Your task to perform on an android device: Clear the cart on target. Search for logitech g903 on target, select the first entry, add it to the cart, then select checkout. Image 0: 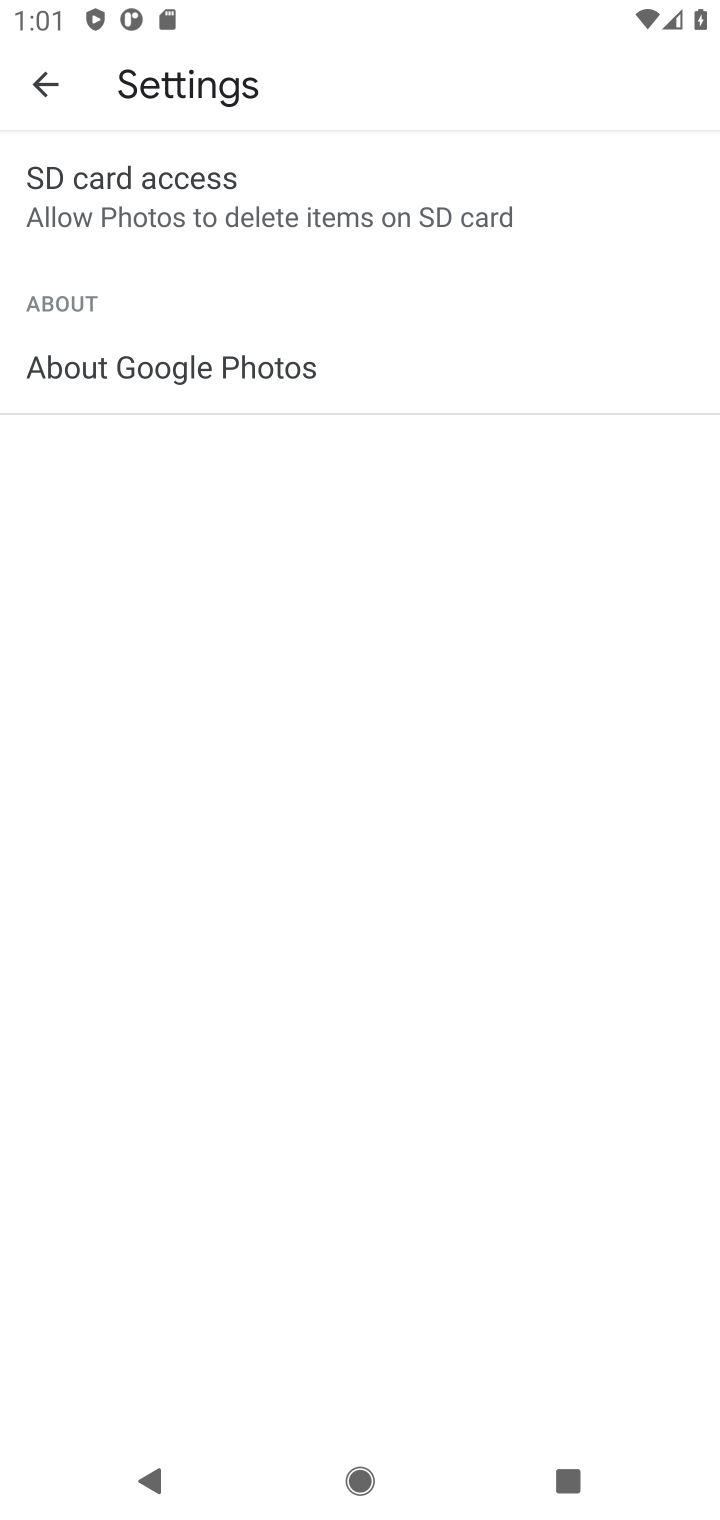
Step 0: press home button
Your task to perform on an android device: Clear the cart on target. Search for logitech g903 on target, select the first entry, add it to the cart, then select checkout. Image 1: 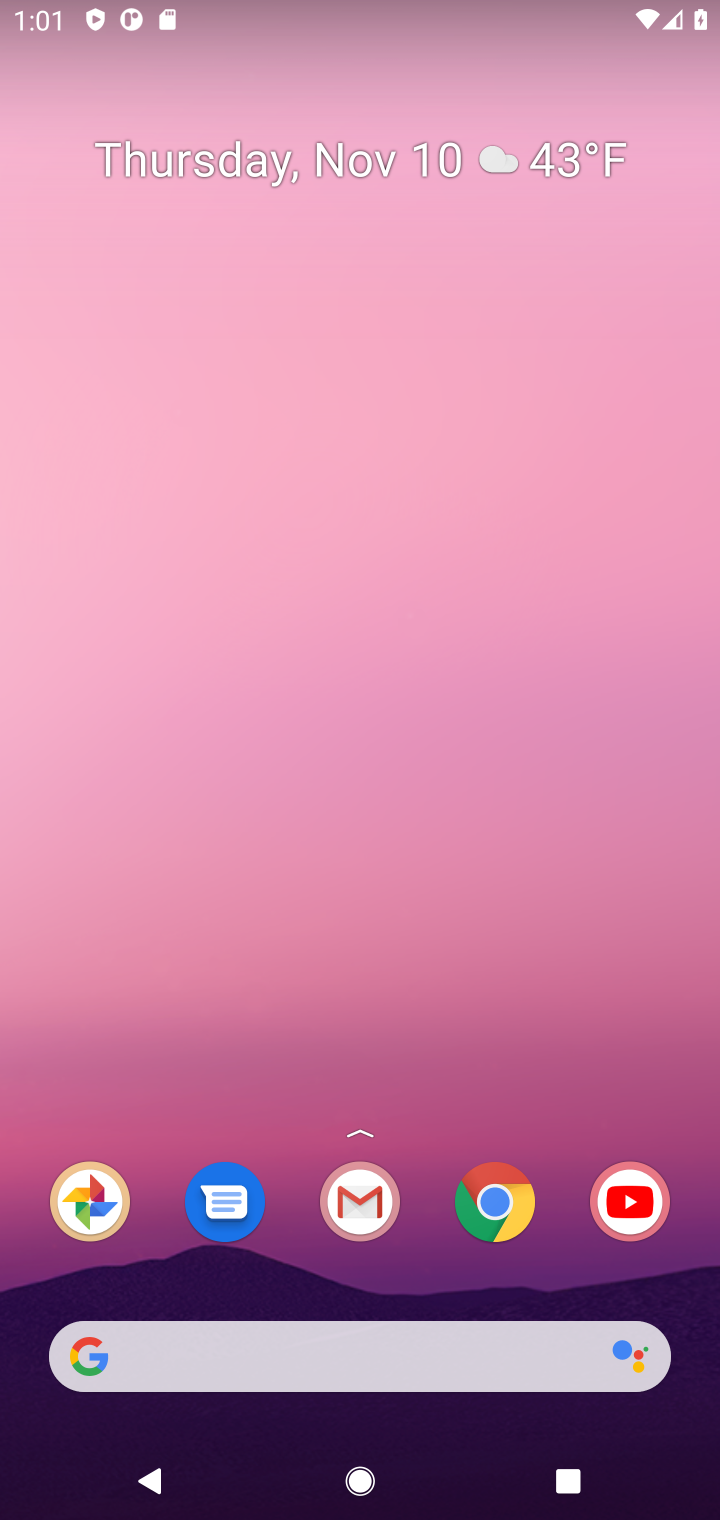
Step 1: click (491, 1203)
Your task to perform on an android device: Clear the cart on target. Search for logitech g903 on target, select the first entry, add it to the cart, then select checkout. Image 2: 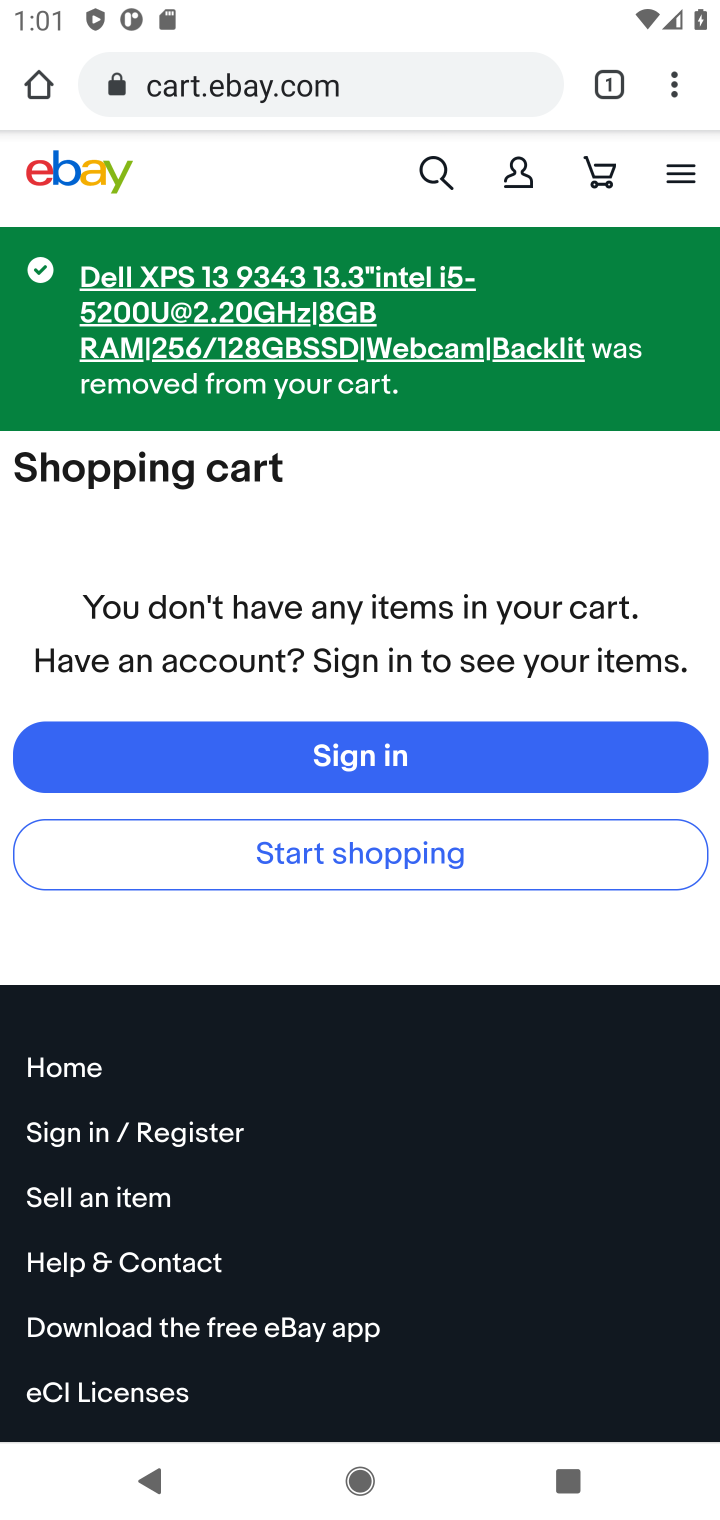
Step 2: click (423, 67)
Your task to perform on an android device: Clear the cart on target. Search for logitech g903 on target, select the first entry, add it to the cart, then select checkout. Image 3: 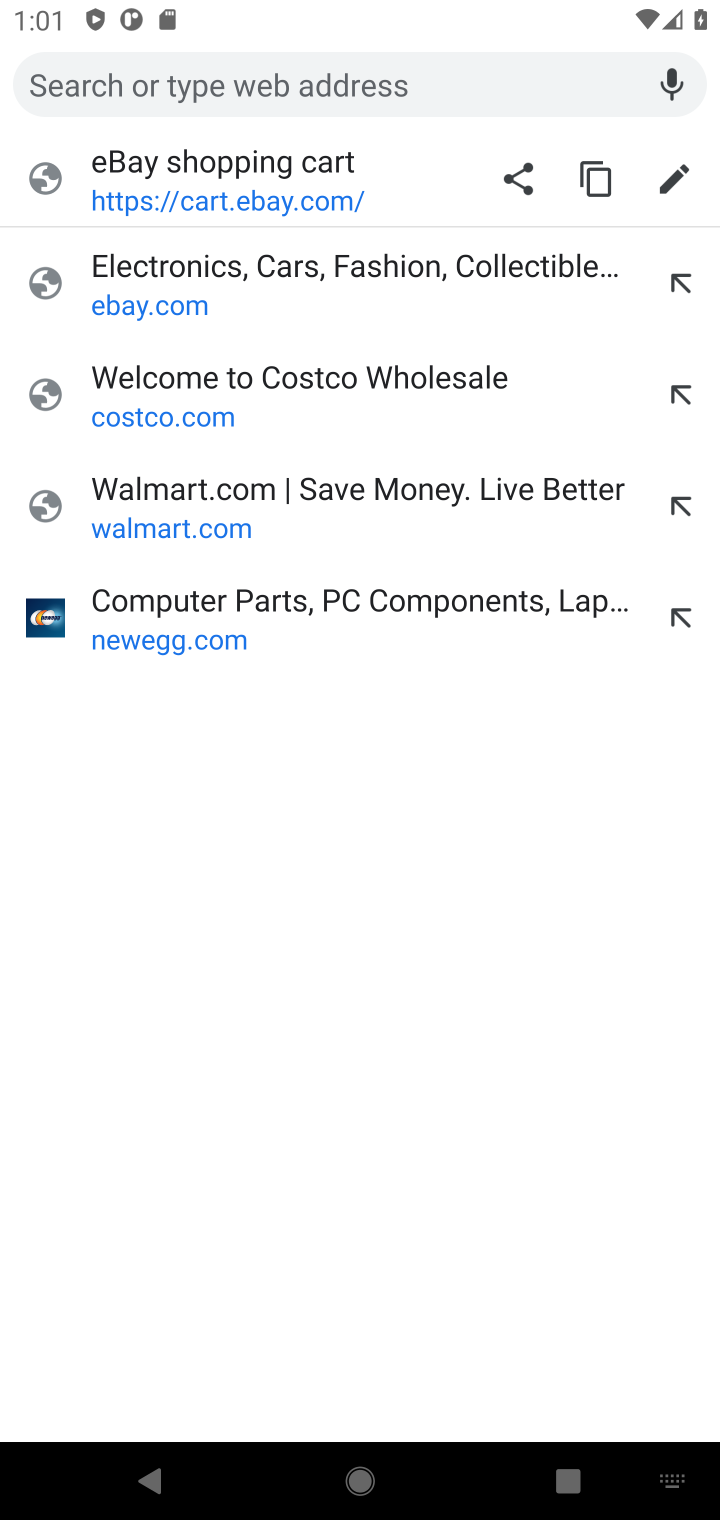
Step 3: type "target"
Your task to perform on an android device: Clear the cart on target. Search for logitech g903 on target, select the first entry, add it to the cart, then select checkout. Image 4: 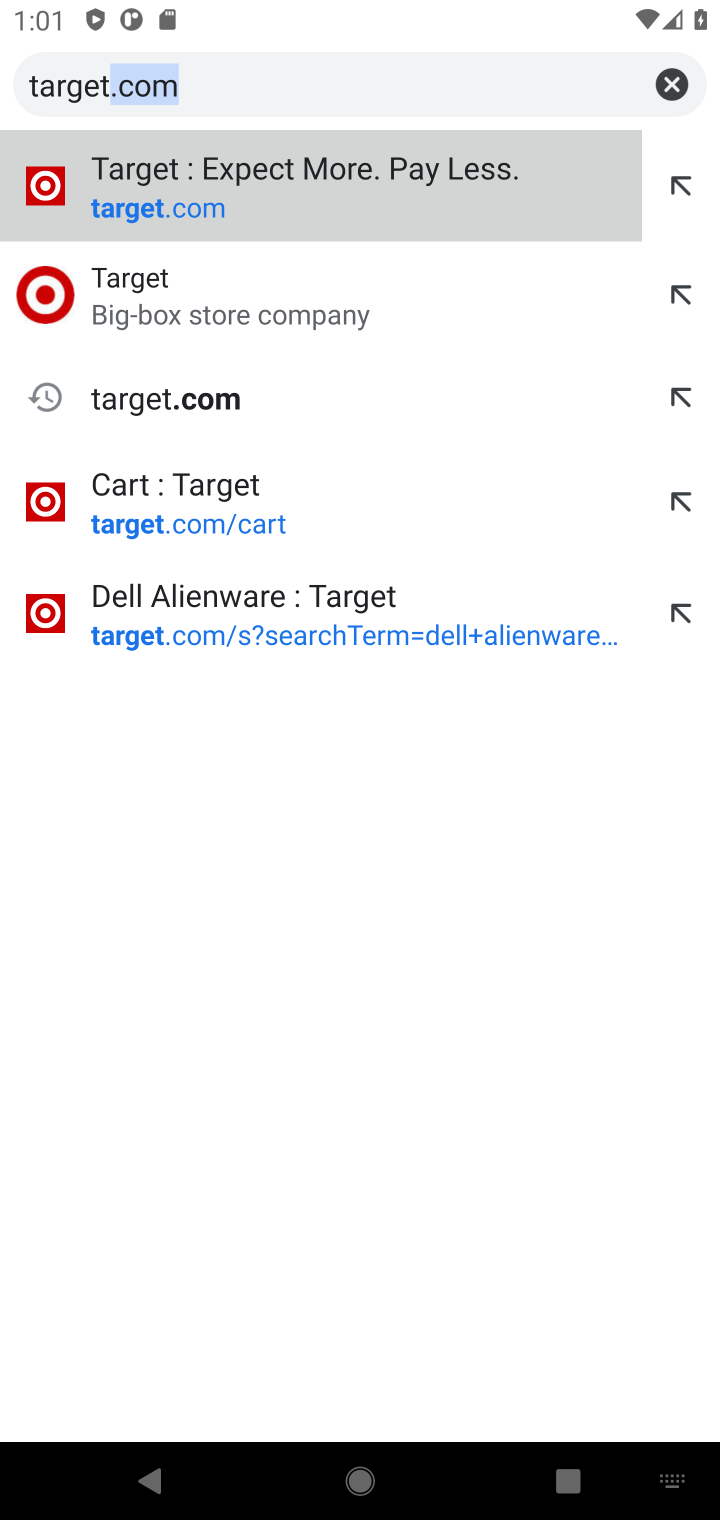
Step 4: press enter
Your task to perform on an android device: Clear the cart on target. Search for logitech g903 on target, select the first entry, add it to the cart, then select checkout. Image 5: 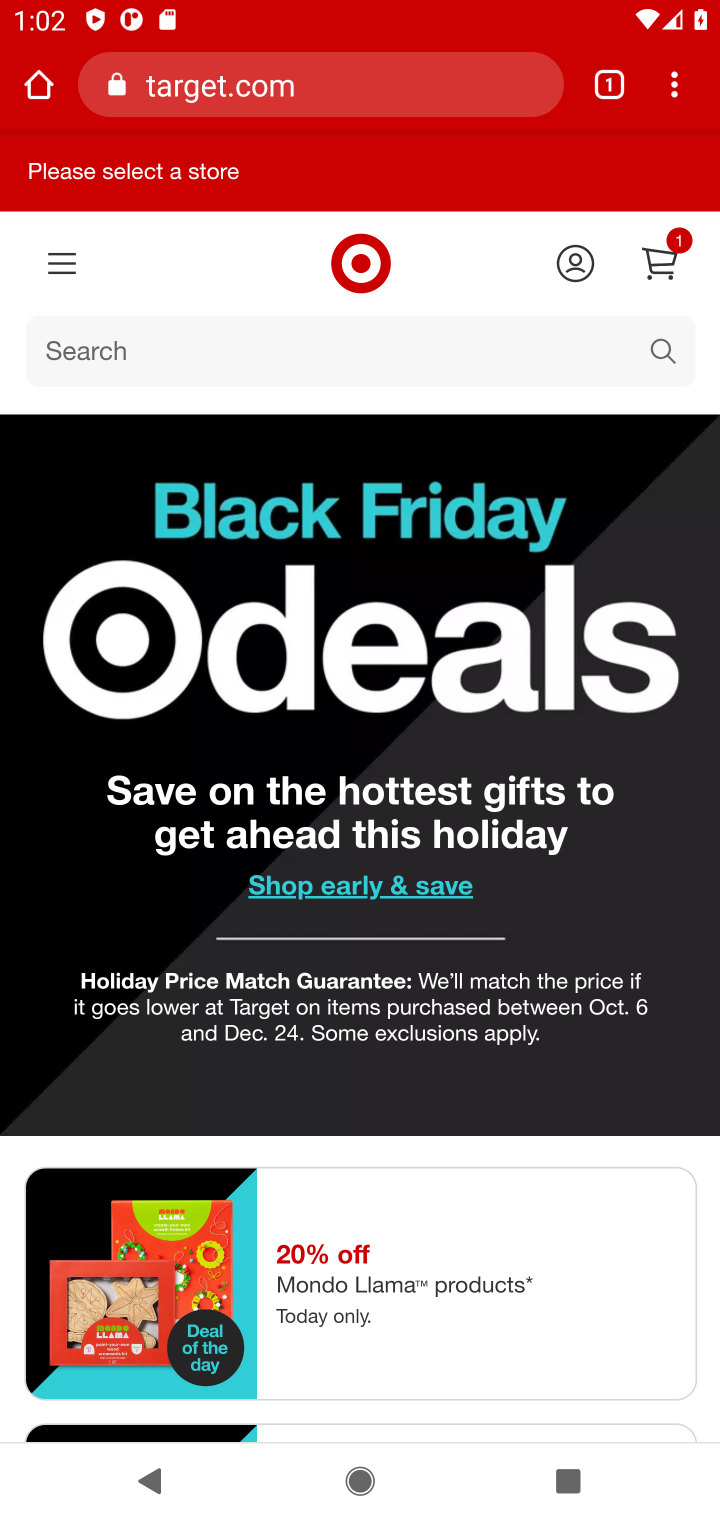
Step 5: click (660, 271)
Your task to perform on an android device: Clear the cart on target. Search for logitech g903 on target, select the first entry, add it to the cart, then select checkout. Image 6: 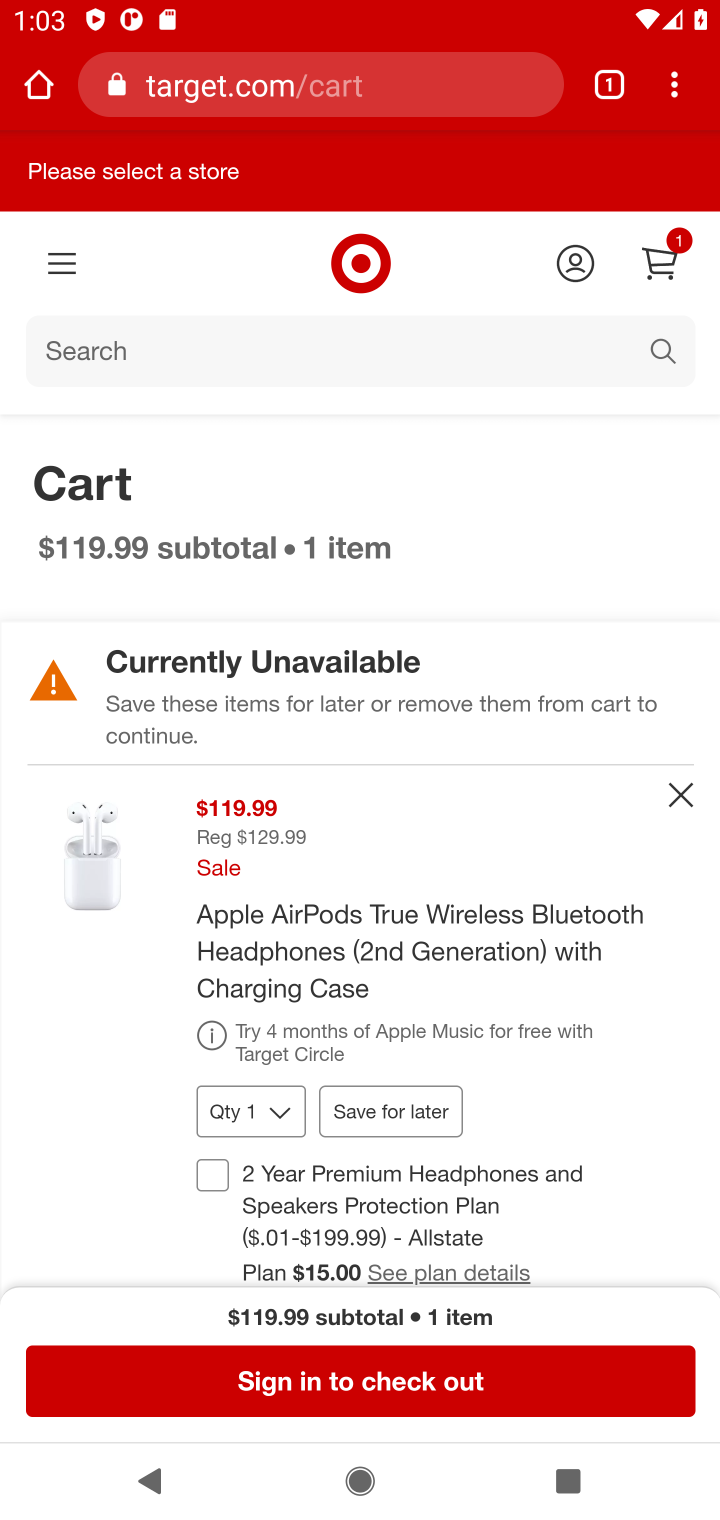
Step 6: click (679, 790)
Your task to perform on an android device: Clear the cart on target. Search for logitech g903 on target, select the first entry, add it to the cart, then select checkout. Image 7: 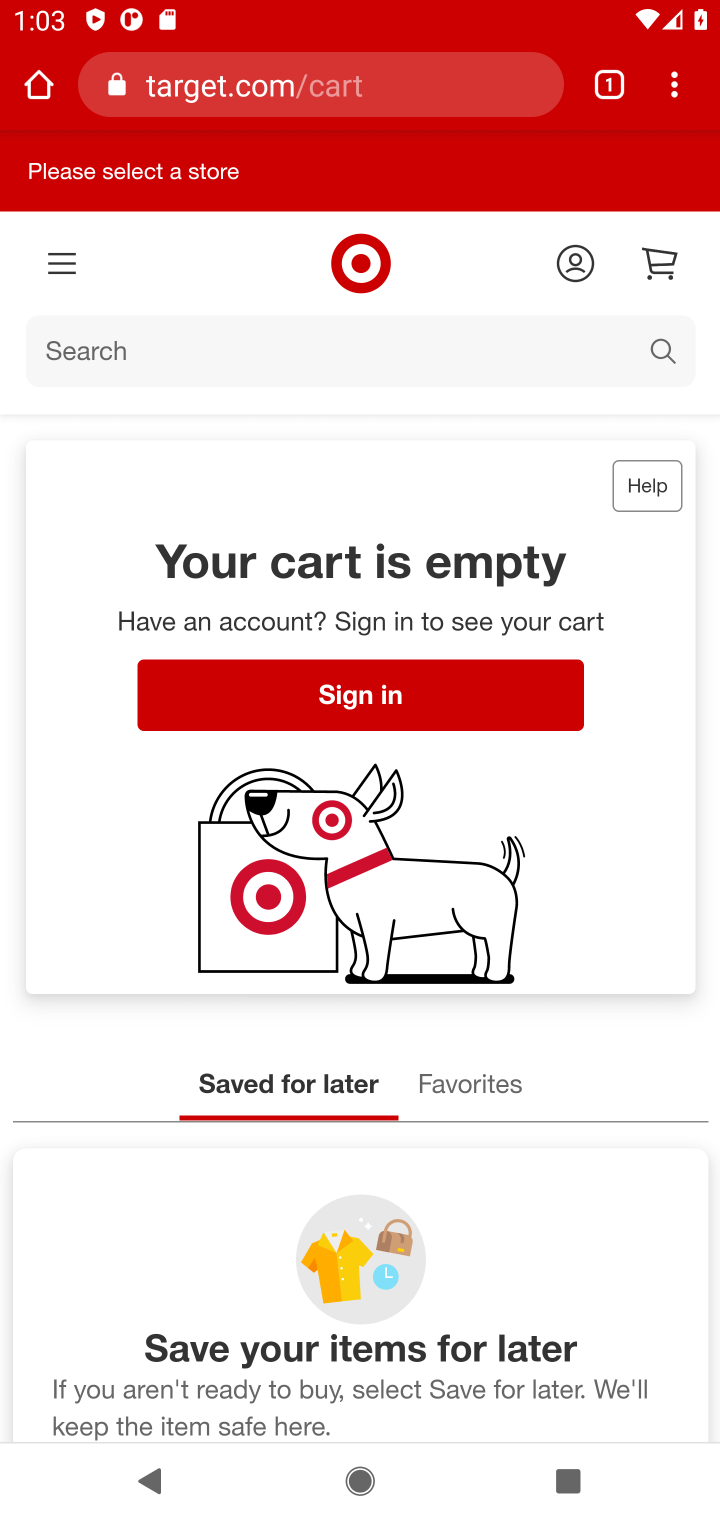
Step 7: click (661, 356)
Your task to perform on an android device: Clear the cart on target. Search for logitech g903 on target, select the first entry, add it to the cart, then select checkout. Image 8: 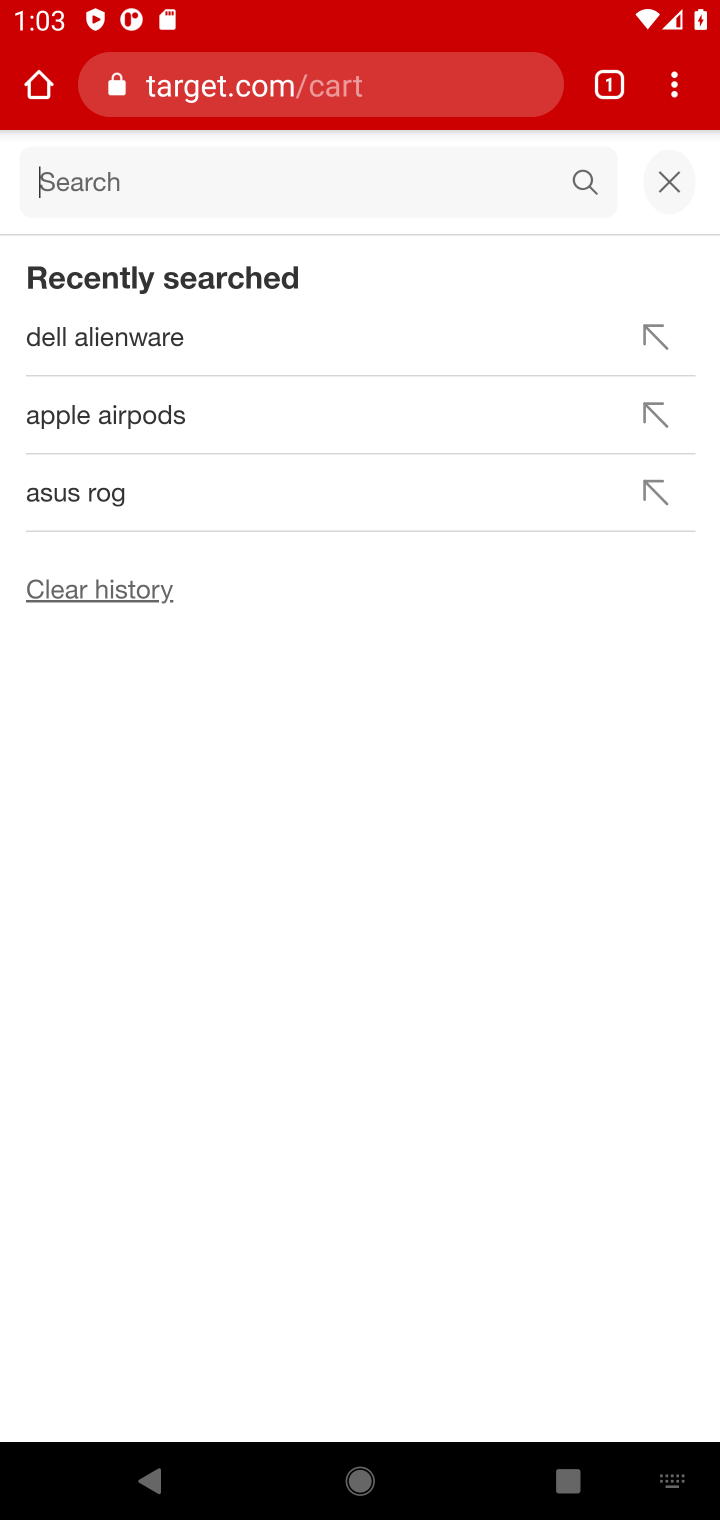
Step 8: type " logitech g903"
Your task to perform on an android device: Clear the cart on target. Search for logitech g903 on target, select the first entry, add it to the cart, then select checkout. Image 9: 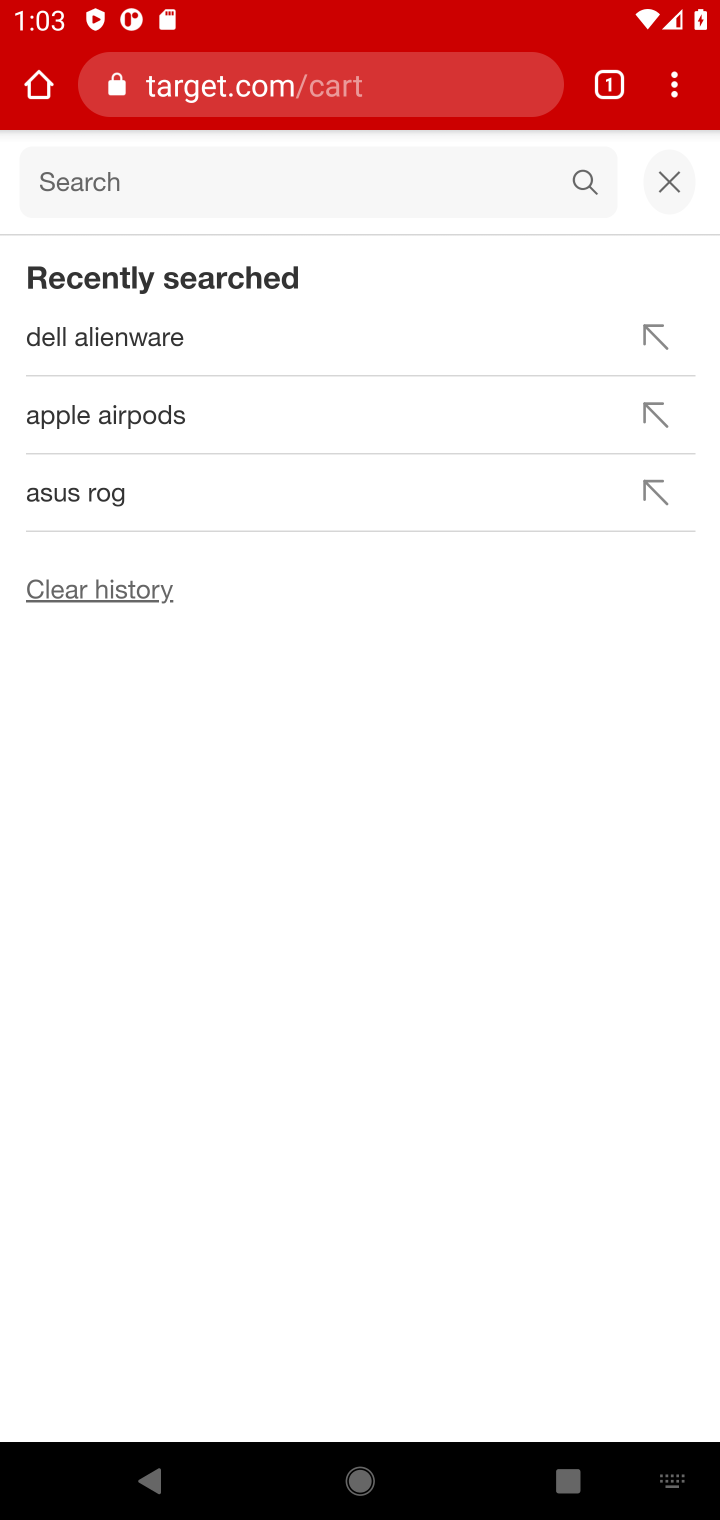
Step 9: press enter
Your task to perform on an android device: Clear the cart on target. Search for logitech g903 on target, select the first entry, add it to the cart, then select checkout. Image 10: 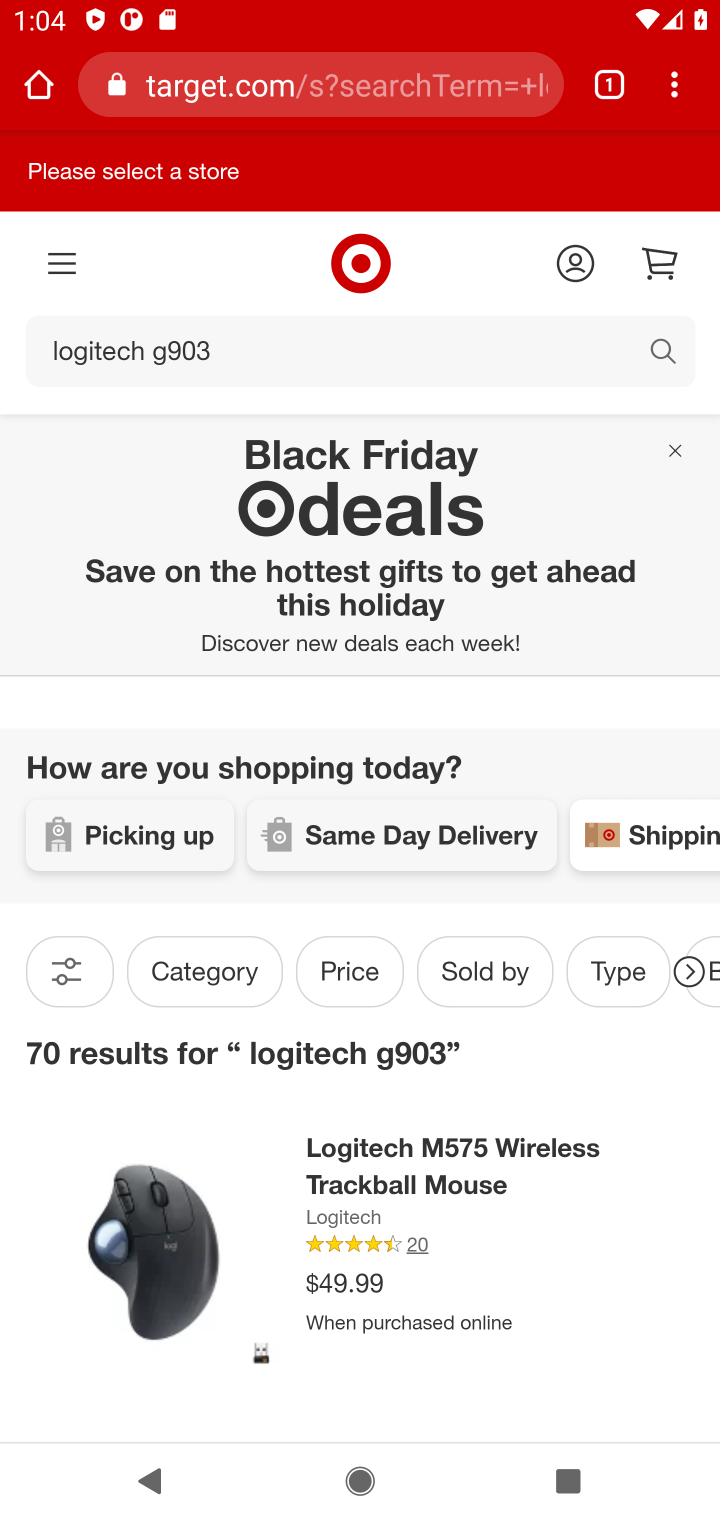
Step 10: task complete